Your task to perform on an android device: check google app version Image 0: 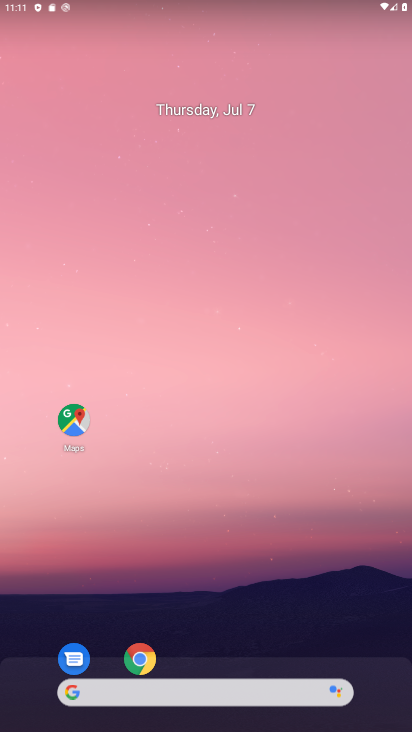
Step 0: click (85, 704)
Your task to perform on an android device: check google app version Image 1: 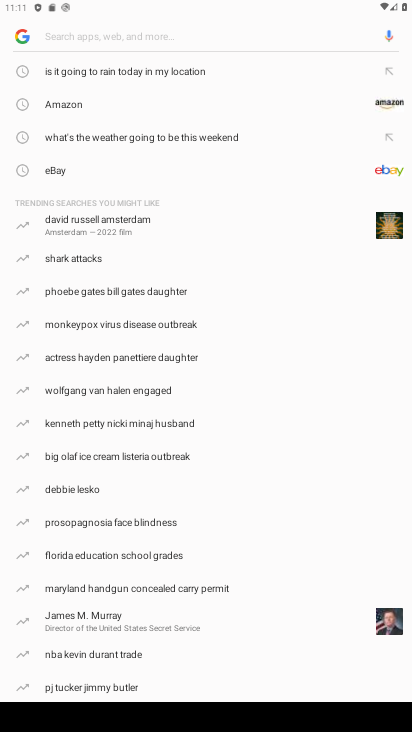
Step 1: click (24, 37)
Your task to perform on an android device: check google app version Image 2: 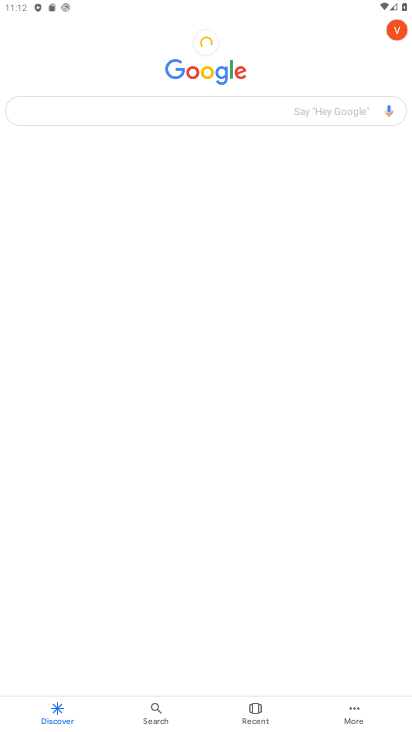
Step 2: click (398, 38)
Your task to perform on an android device: check google app version Image 3: 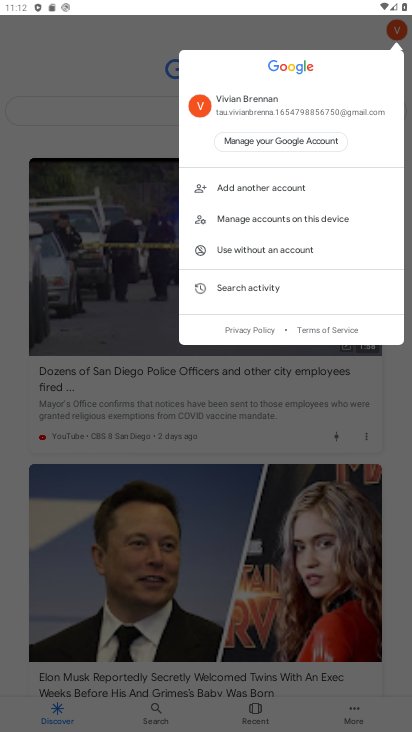
Step 3: click (313, 146)
Your task to perform on an android device: check google app version Image 4: 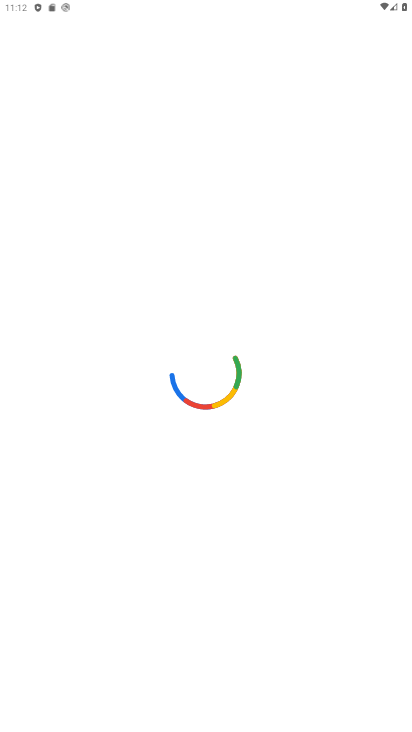
Step 4: press back button
Your task to perform on an android device: check google app version Image 5: 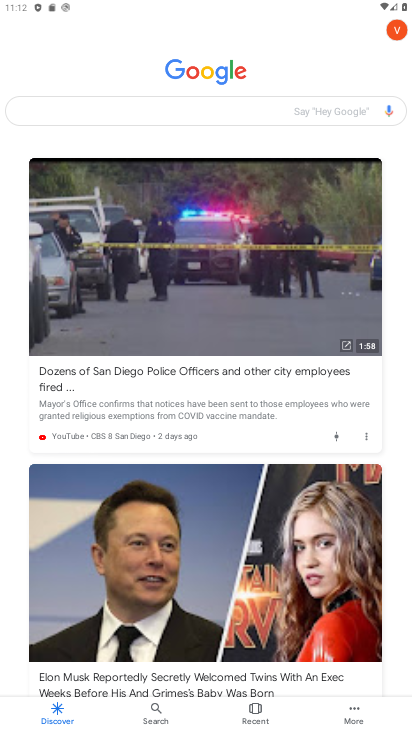
Step 5: click (350, 711)
Your task to perform on an android device: check google app version Image 6: 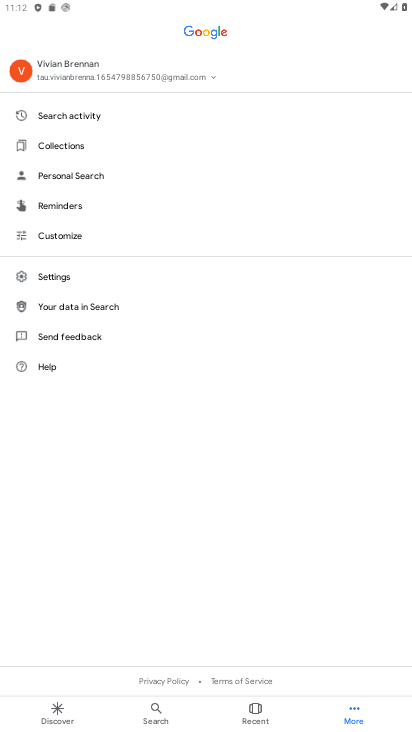
Step 6: click (72, 269)
Your task to perform on an android device: check google app version Image 7: 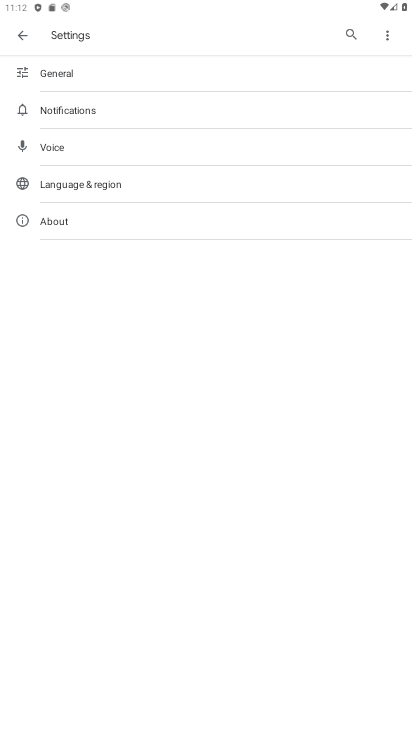
Step 7: click (111, 84)
Your task to perform on an android device: check google app version Image 8: 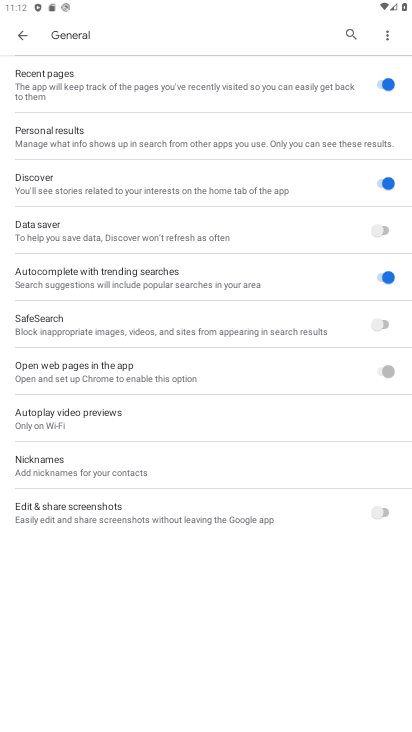
Step 8: click (23, 33)
Your task to perform on an android device: check google app version Image 9: 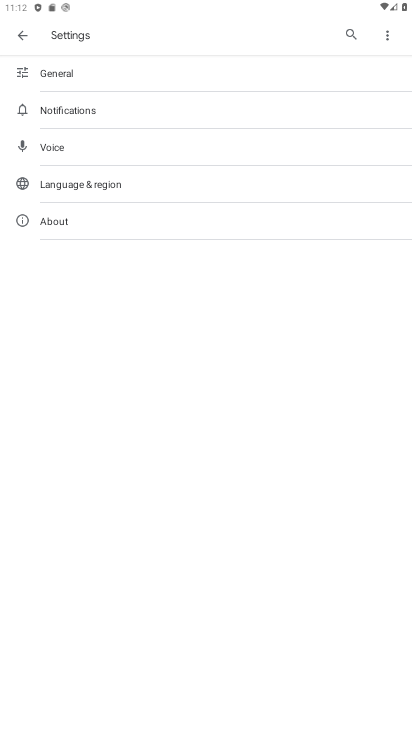
Step 9: click (146, 229)
Your task to perform on an android device: check google app version Image 10: 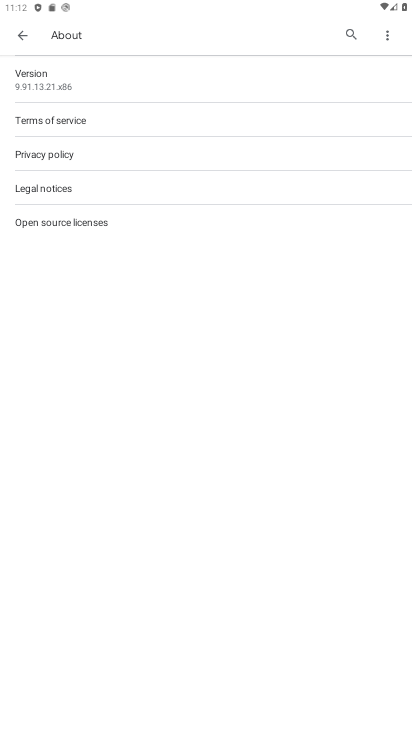
Step 10: task complete